Your task to perform on an android device: Check the weather Image 0: 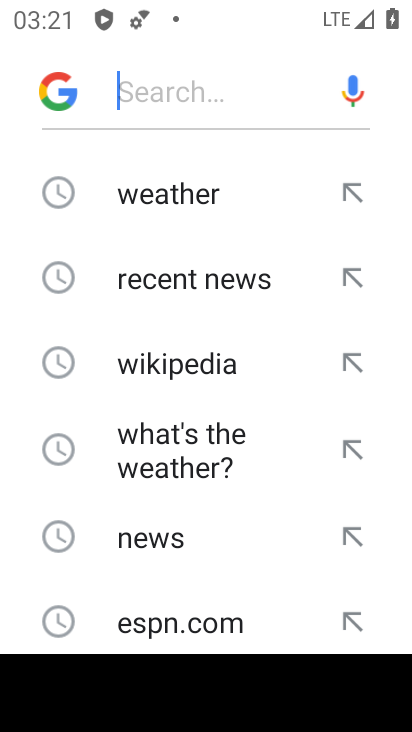
Step 0: press back button
Your task to perform on an android device: Check the weather Image 1: 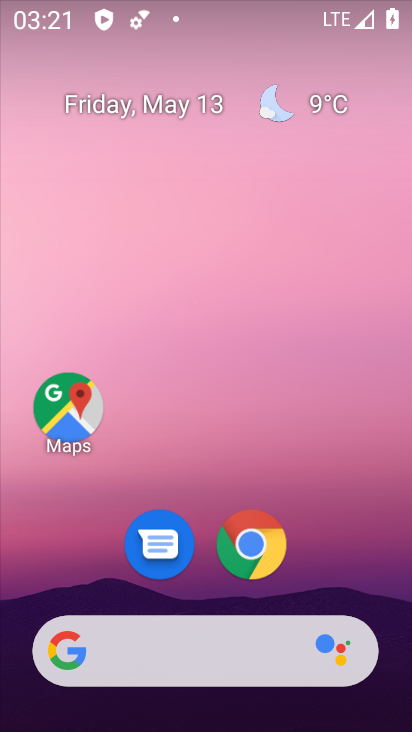
Step 1: drag from (306, 529) to (231, 53)
Your task to perform on an android device: Check the weather Image 2: 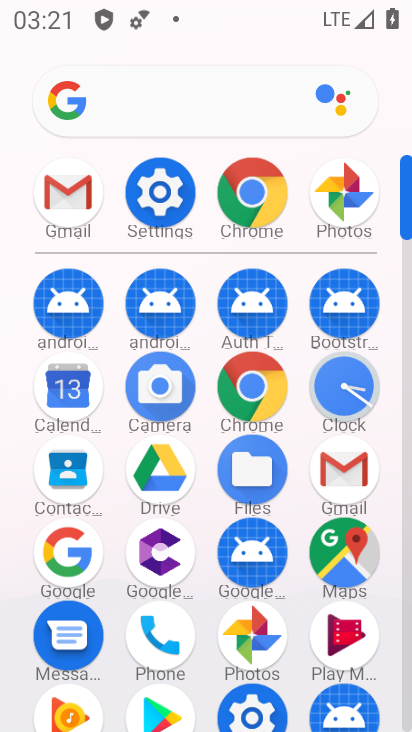
Step 2: click (253, 197)
Your task to perform on an android device: Check the weather Image 3: 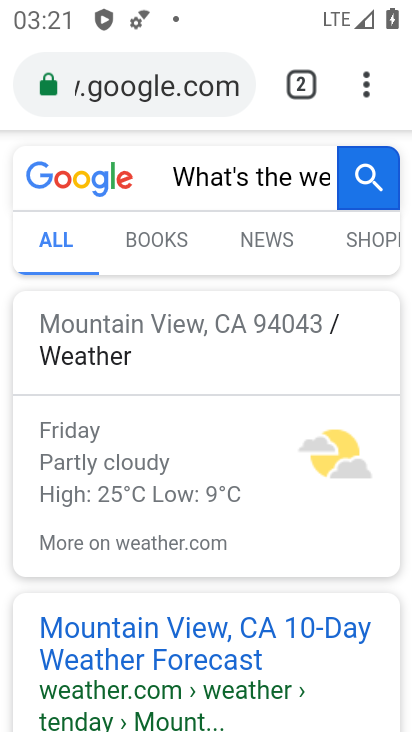
Step 3: click (165, 72)
Your task to perform on an android device: Check the weather Image 4: 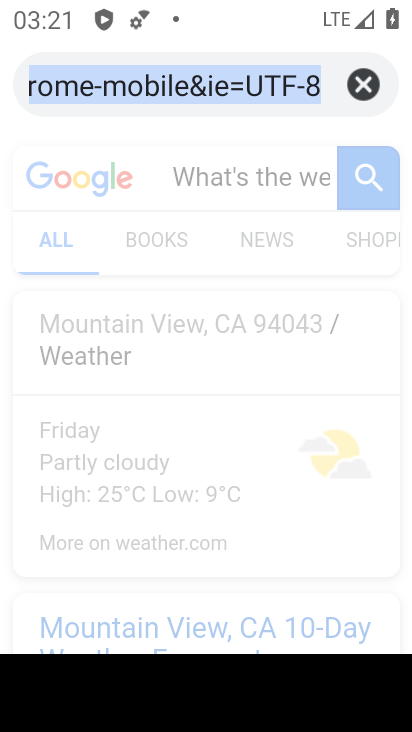
Step 4: click (365, 76)
Your task to perform on an android device: Check the weather Image 5: 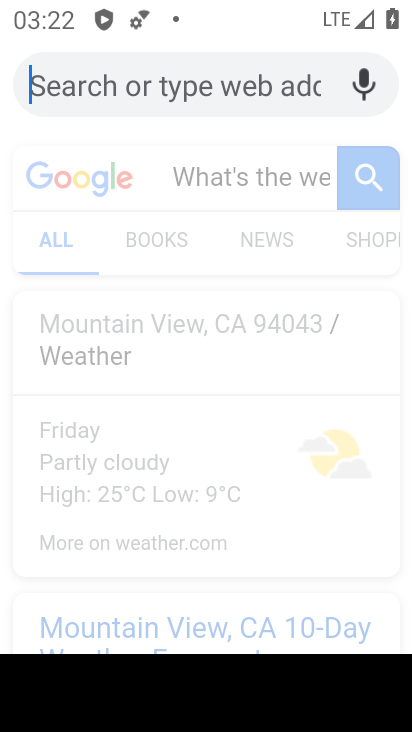
Step 5: type "Check the weather"
Your task to perform on an android device: Check the weather Image 6: 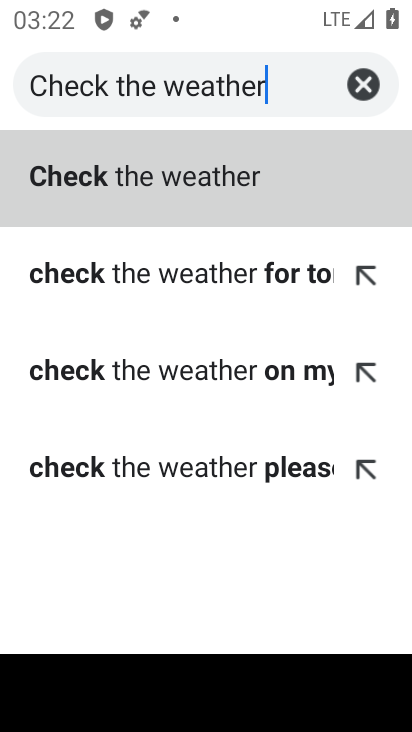
Step 6: click (154, 159)
Your task to perform on an android device: Check the weather Image 7: 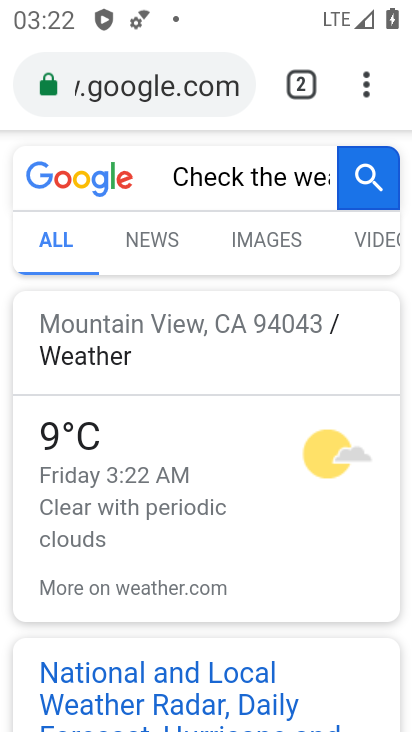
Step 7: task complete